Your task to perform on an android device: Open accessibility settings Image 0: 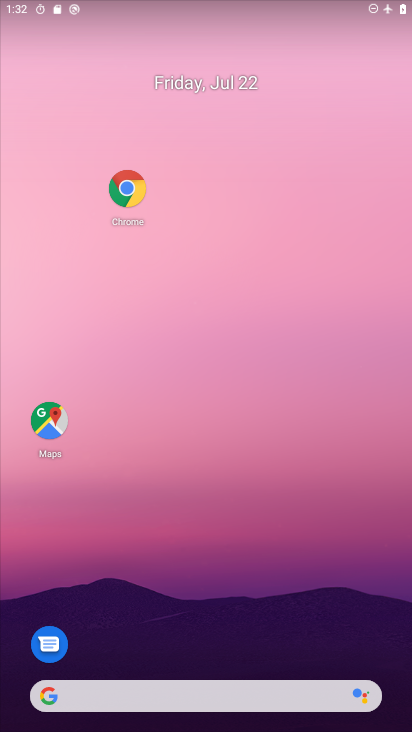
Step 0: drag from (275, 589) to (239, 27)
Your task to perform on an android device: Open accessibility settings Image 1: 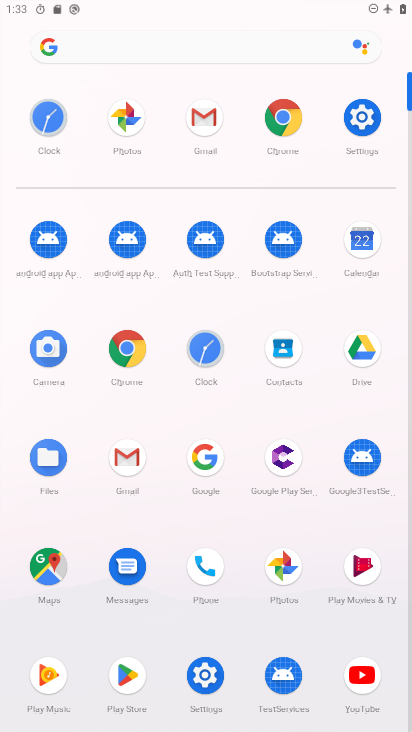
Step 1: click (359, 111)
Your task to perform on an android device: Open accessibility settings Image 2: 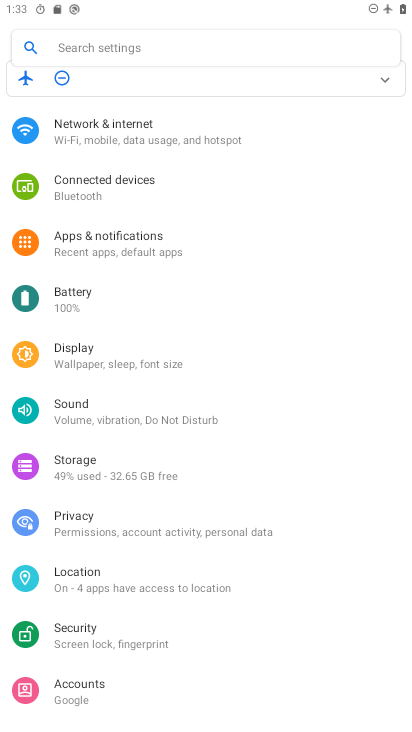
Step 2: drag from (122, 610) to (151, 83)
Your task to perform on an android device: Open accessibility settings Image 3: 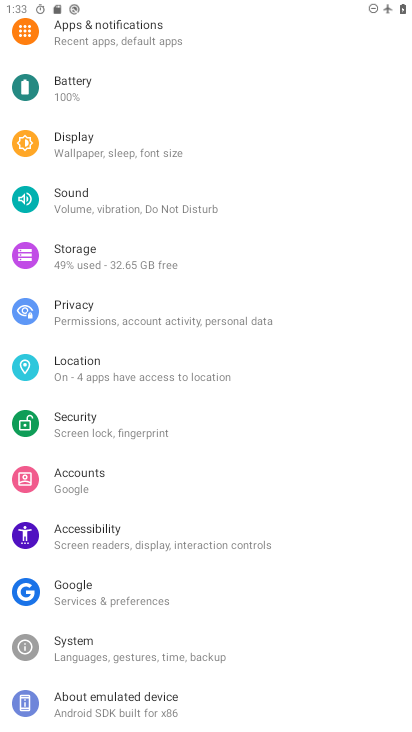
Step 3: click (56, 542)
Your task to perform on an android device: Open accessibility settings Image 4: 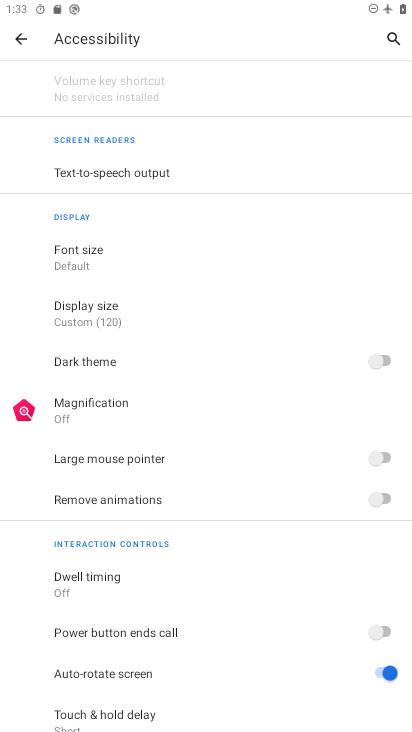
Step 4: task complete